Your task to perform on an android device: When is my next meeting? Image 0: 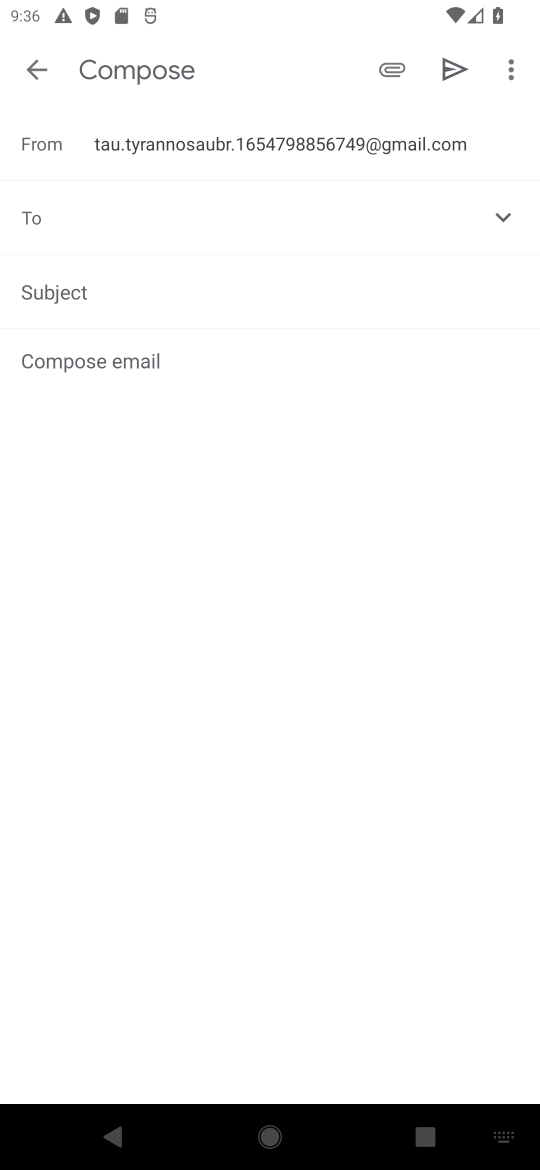
Step 0: press home button
Your task to perform on an android device: When is my next meeting? Image 1: 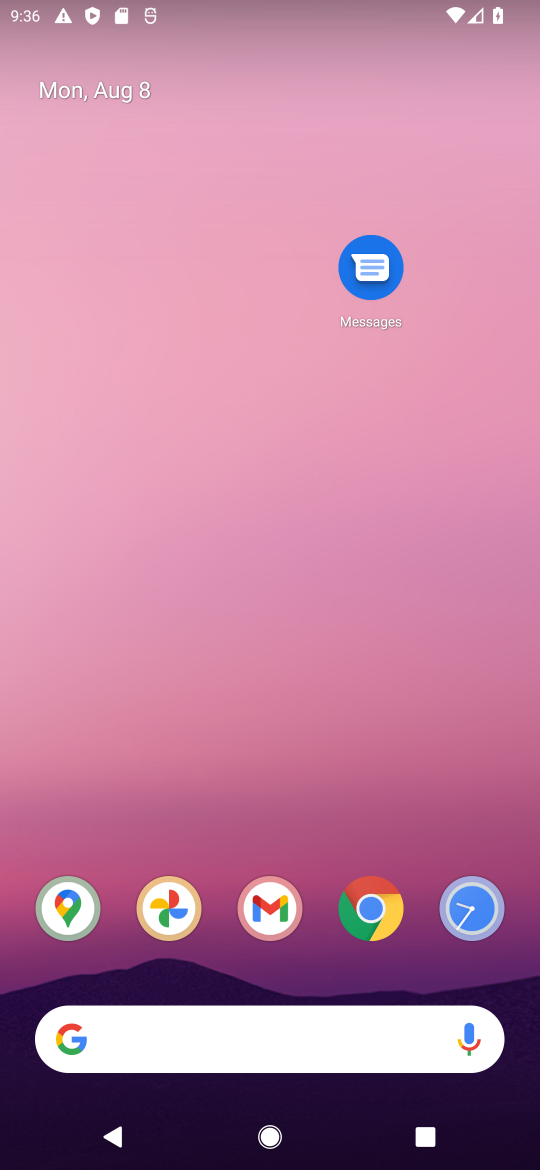
Step 1: click (68, 95)
Your task to perform on an android device: When is my next meeting? Image 2: 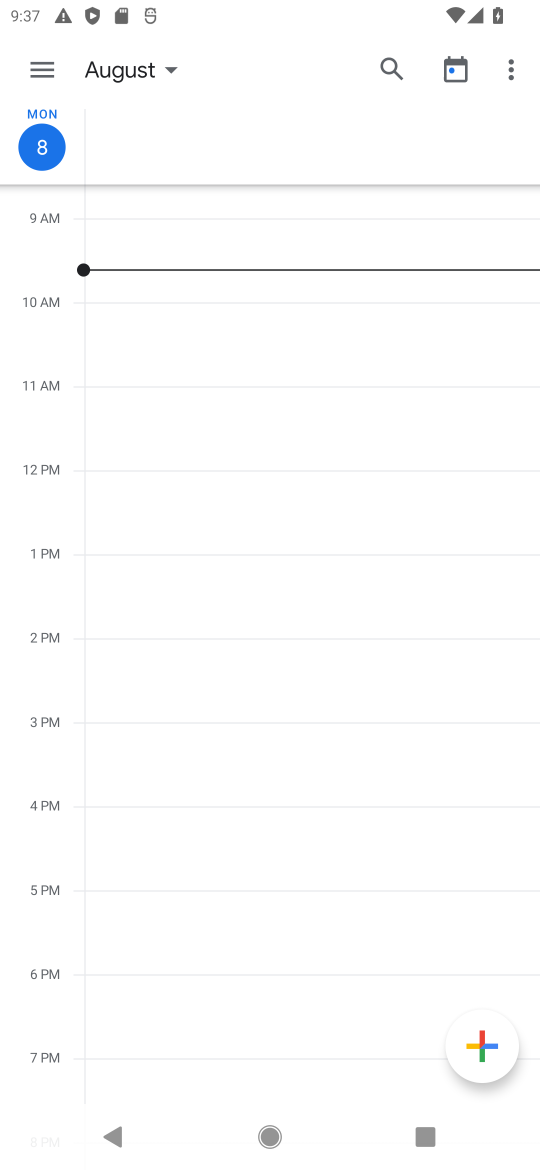
Step 2: task complete